Your task to perform on an android device: show emergency info Image 0: 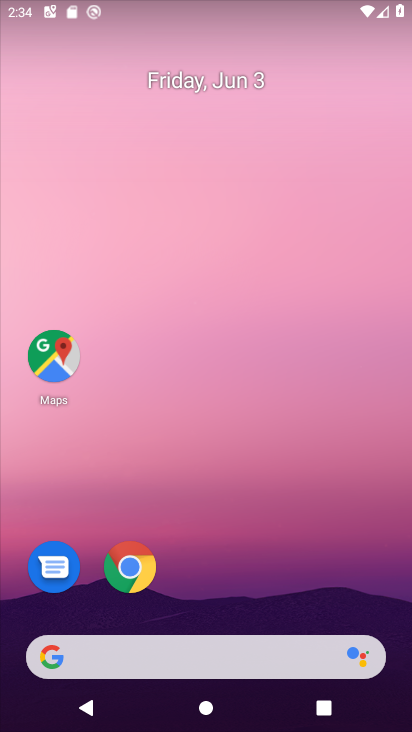
Step 0: drag from (213, 533) to (213, 213)
Your task to perform on an android device: show emergency info Image 1: 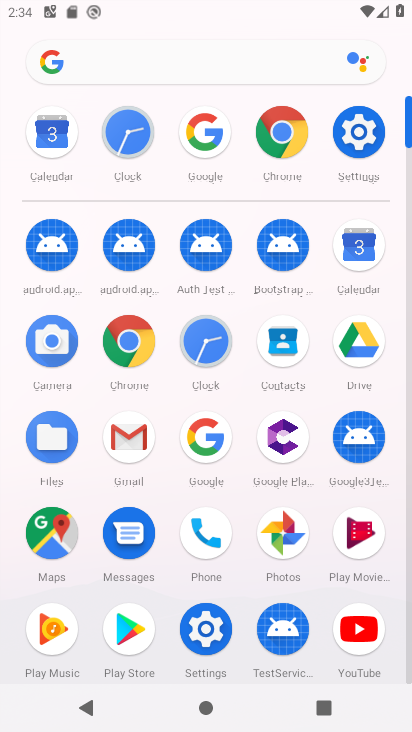
Step 1: click (374, 128)
Your task to perform on an android device: show emergency info Image 2: 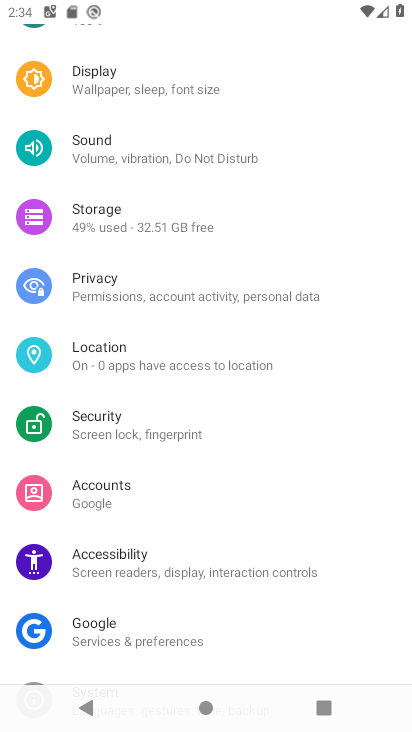
Step 2: drag from (166, 649) to (229, 264)
Your task to perform on an android device: show emergency info Image 3: 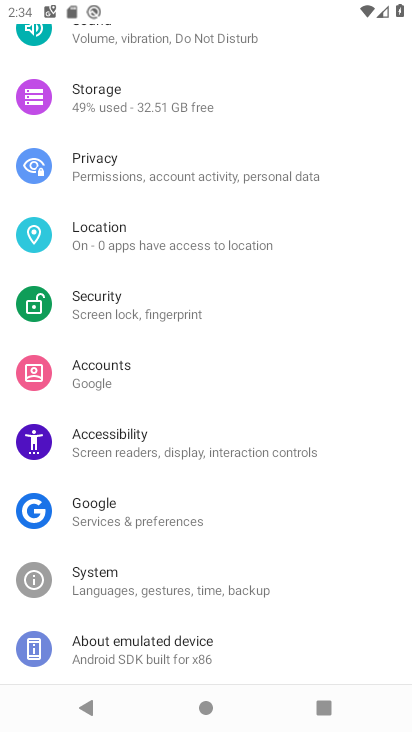
Step 3: click (162, 638)
Your task to perform on an android device: show emergency info Image 4: 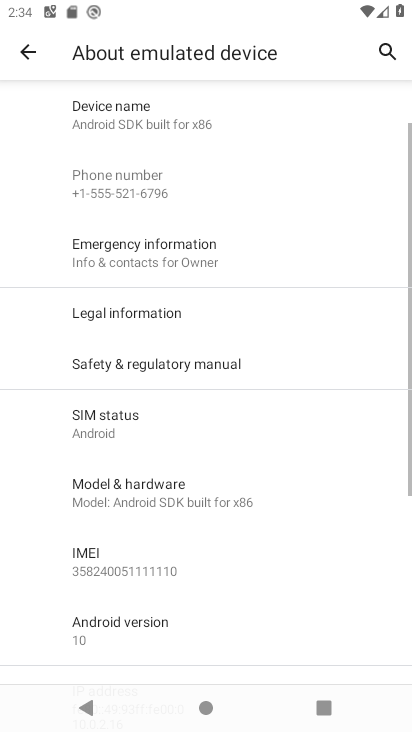
Step 4: click (139, 266)
Your task to perform on an android device: show emergency info Image 5: 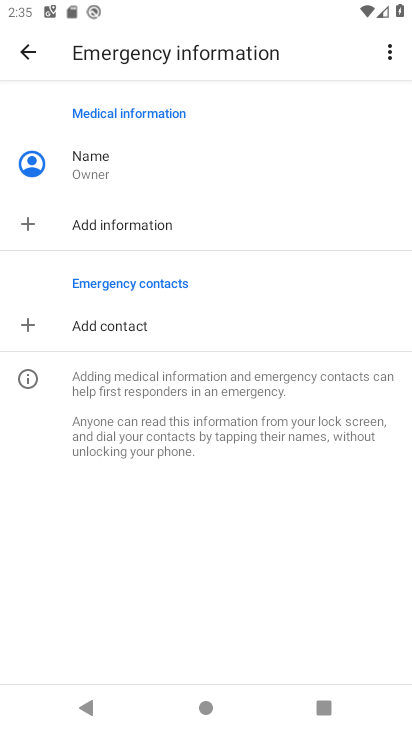
Step 5: task complete